Your task to perform on an android device: Open Youtube and go to the subscriptions tab Image 0: 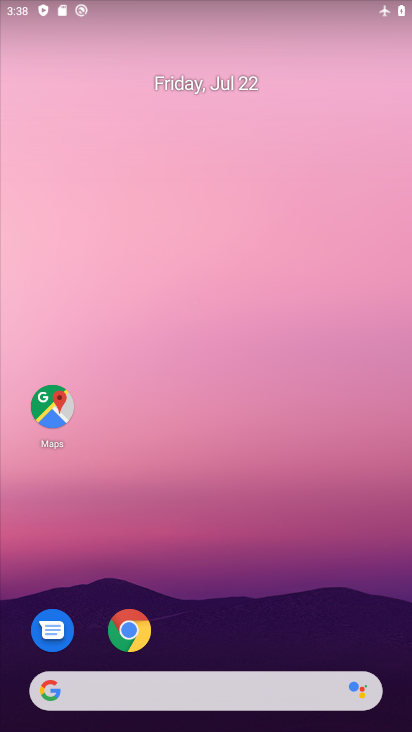
Step 0: drag from (202, 364) to (239, 67)
Your task to perform on an android device: Open Youtube and go to the subscriptions tab Image 1: 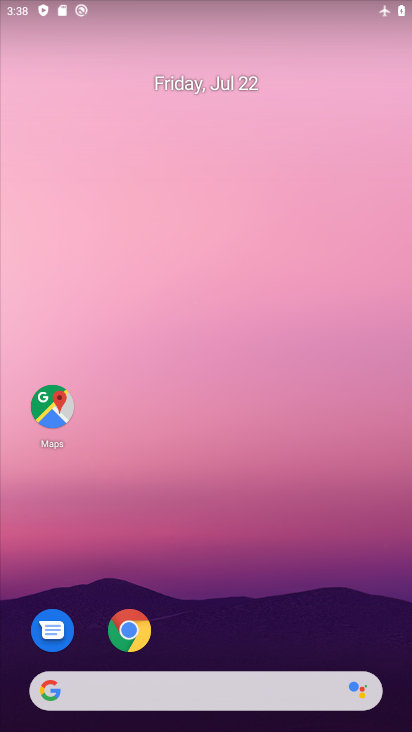
Step 1: drag from (236, 604) to (214, 8)
Your task to perform on an android device: Open Youtube and go to the subscriptions tab Image 2: 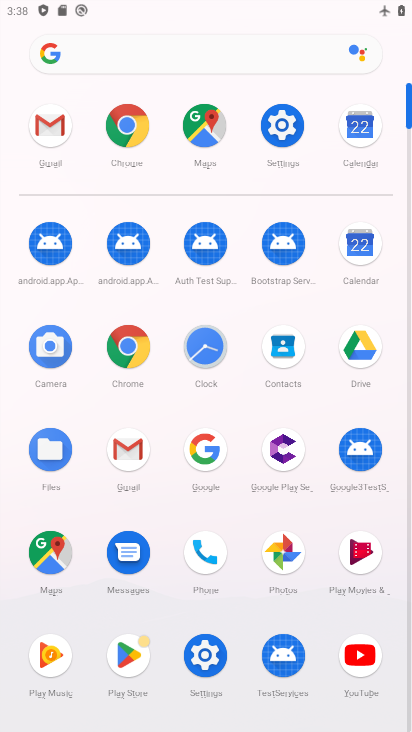
Step 2: click (371, 649)
Your task to perform on an android device: Open Youtube and go to the subscriptions tab Image 3: 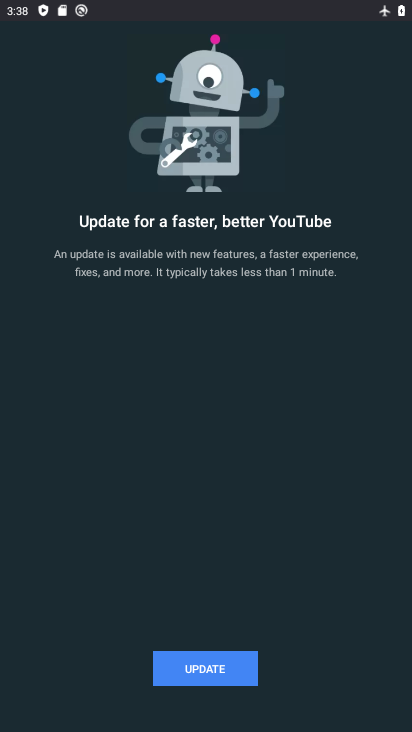
Step 3: click (220, 670)
Your task to perform on an android device: Open Youtube and go to the subscriptions tab Image 4: 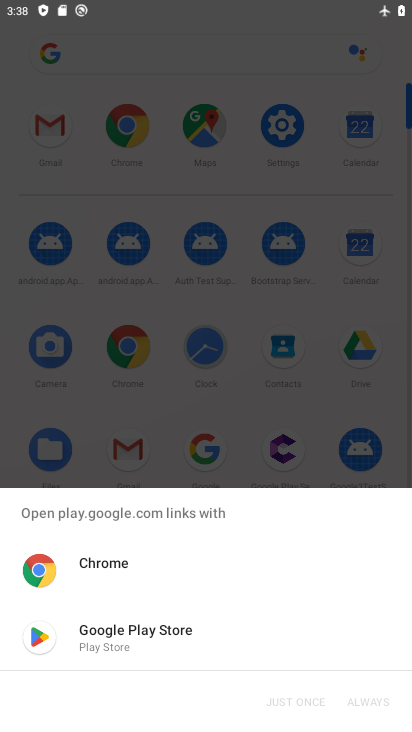
Step 4: click (105, 645)
Your task to perform on an android device: Open Youtube and go to the subscriptions tab Image 5: 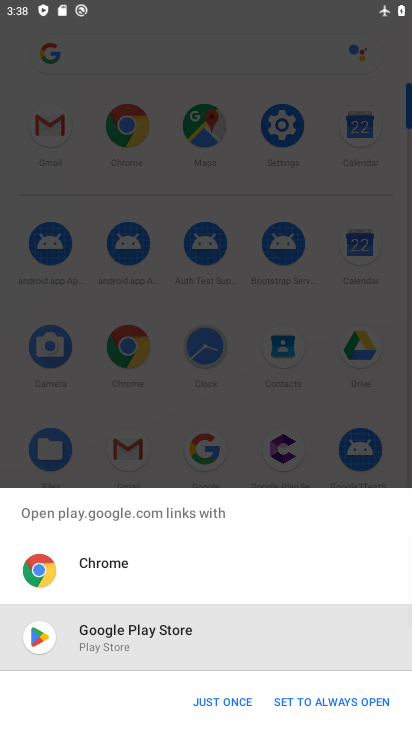
Step 5: click (232, 698)
Your task to perform on an android device: Open Youtube and go to the subscriptions tab Image 6: 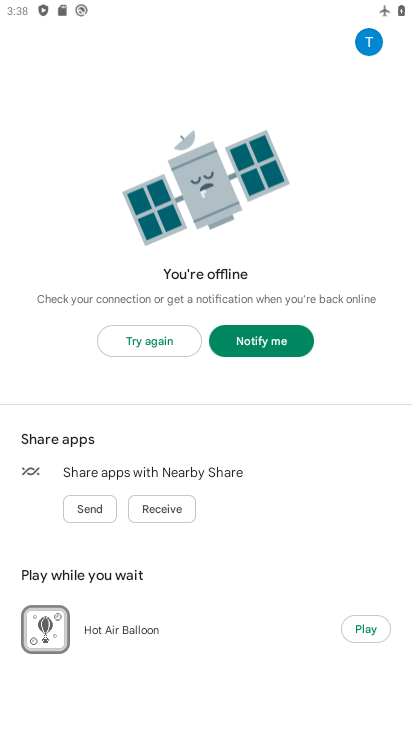
Step 6: click (162, 339)
Your task to perform on an android device: Open Youtube and go to the subscriptions tab Image 7: 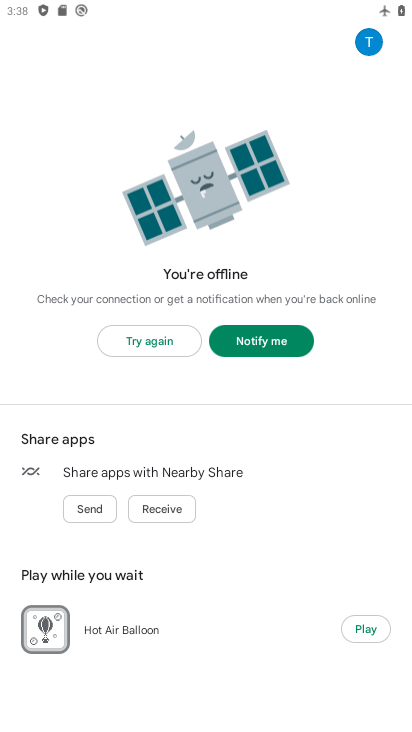
Step 7: click (163, 341)
Your task to perform on an android device: Open Youtube and go to the subscriptions tab Image 8: 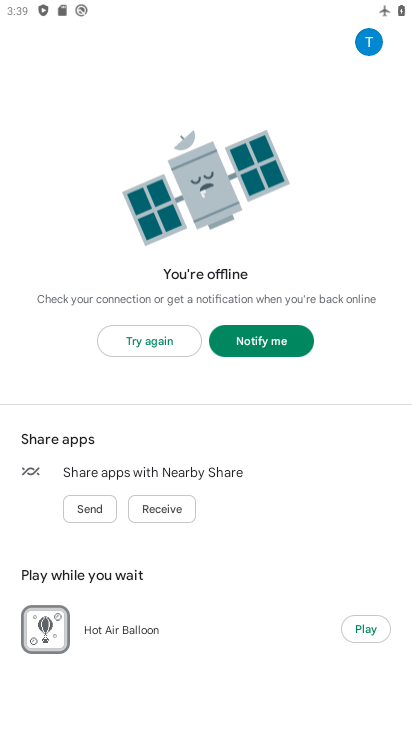
Step 8: click (164, 342)
Your task to perform on an android device: Open Youtube and go to the subscriptions tab Image 9: 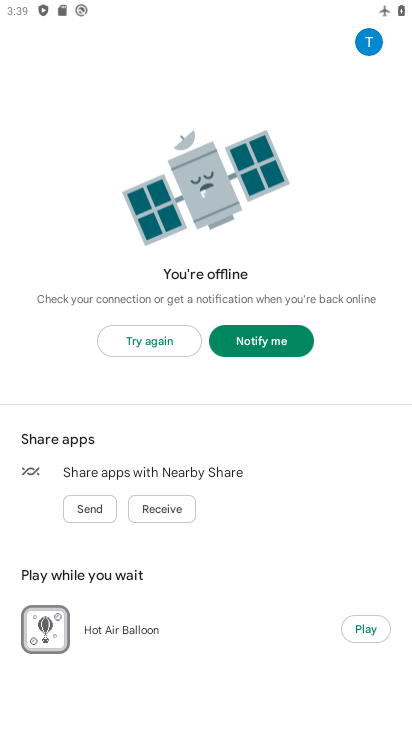
Step 9: press back button
Your task to perform on an android device: Open Youtube and go to the subscriptions tab Image 10: 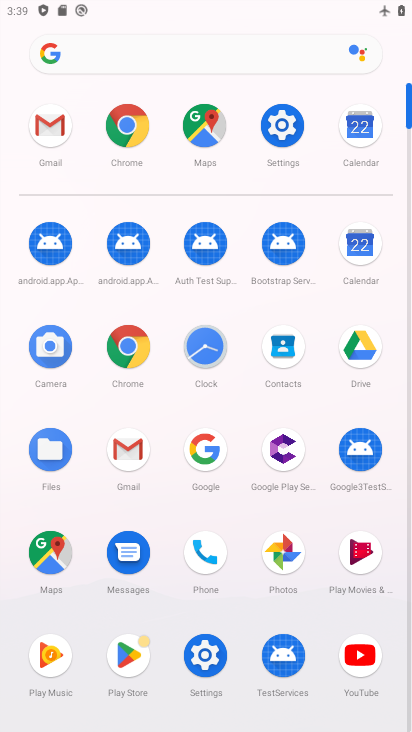
Step 10: click (331, 682)
Your task to perform on an android device: Open Youtube and go to the subscriptions tab Image 11: 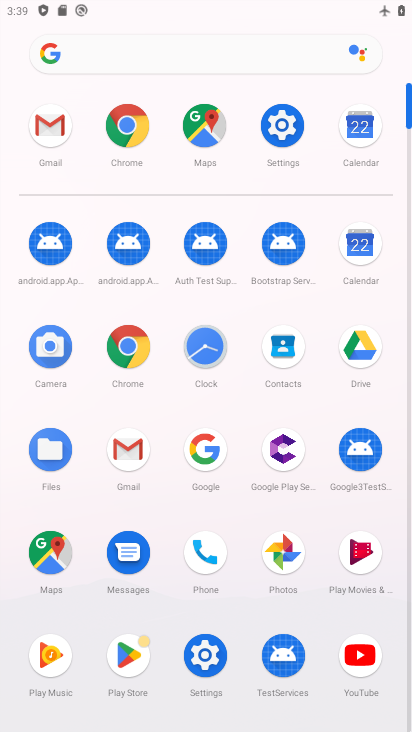
Step 11: click (353, 664)
Your task to perform on an android device: Open Youtube and go to the subscriptions tab Image 12: 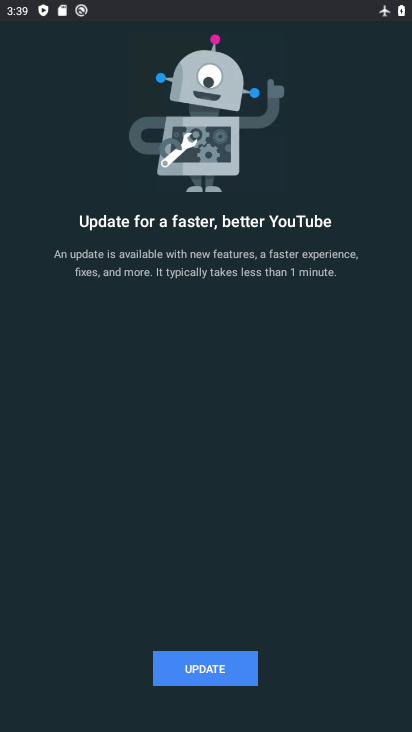
Step 12: click (237, 665)
Your task to perform on an android device: Open Youtube and go to the subscriptions tab Image 13: 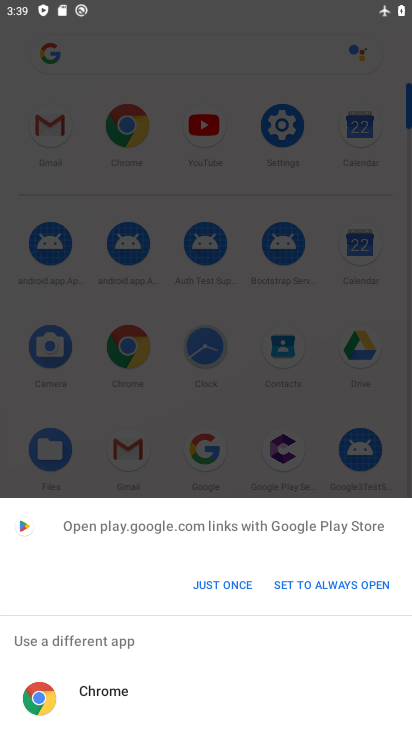
Step 13: click (212, 582)
Your task to perform on an android device: Open Youtube and go to the subscriptions tab Image 14: 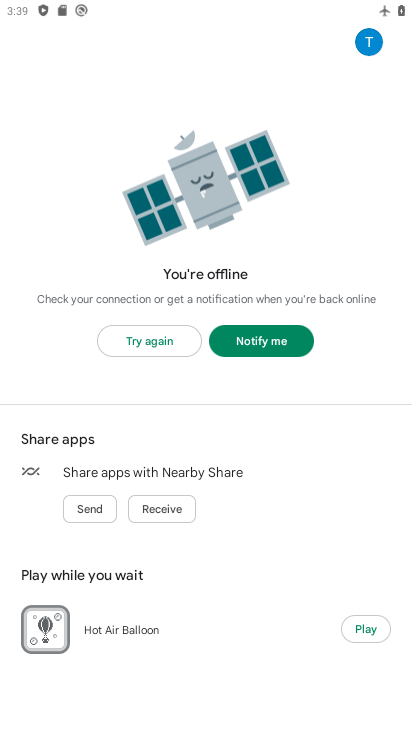
Step 14: click (163, 338)
Your task to perform on an android device: Open Youtube and go to the subscriptions tab Image 15: 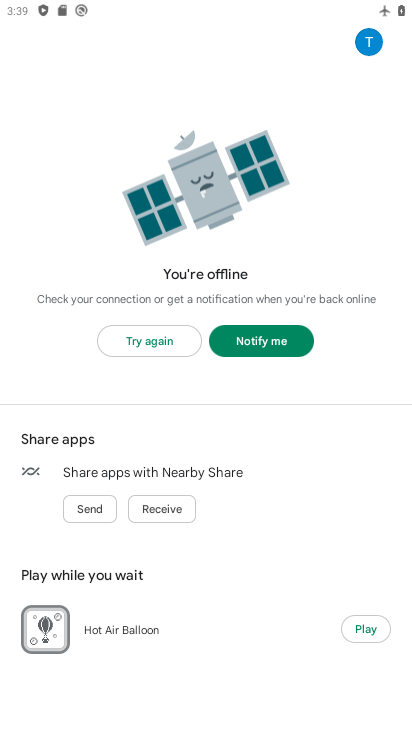
Step 15: task complete